Your task to perform on an android device: move an email to a new category in the gmail app Image 0: 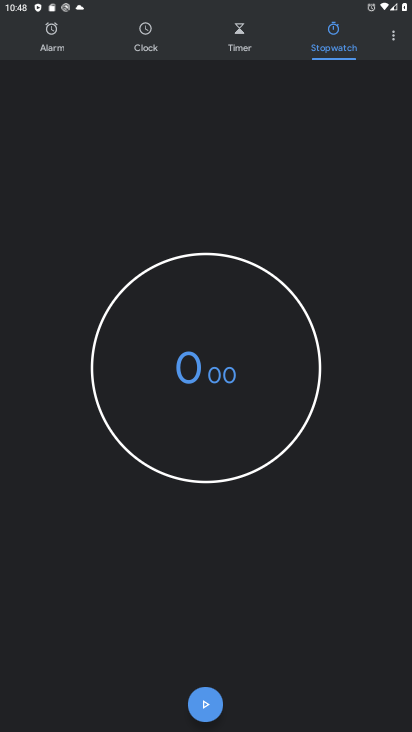
Step 0: press home button
Your task to perform on an android device: move an email to a new category in the gmail app Image 1: 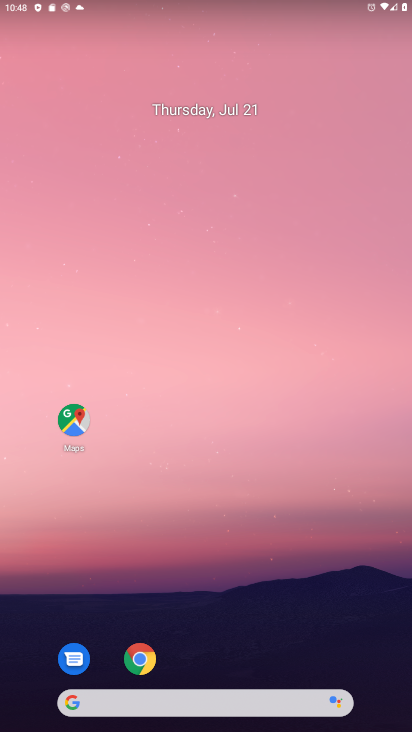
Step 1: drag from (179, 678) to (273, 92)
Your task to perform on an android device: move an email to a new category in the gmail app Image 2: 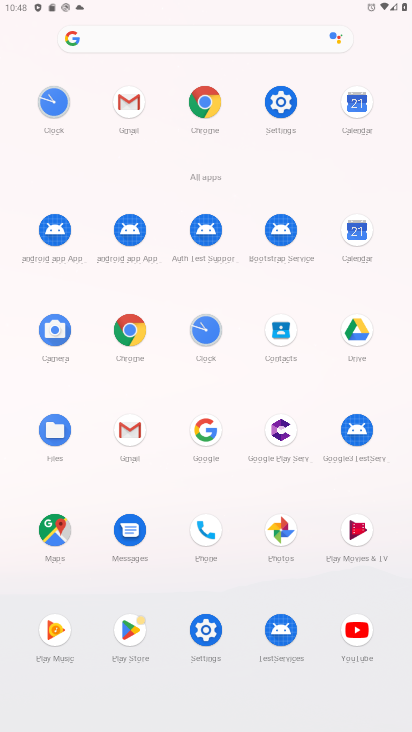
Step 2: click (126, 96)
Your task to perform on an android device: move an email to a new category in the gmail app Image 3: 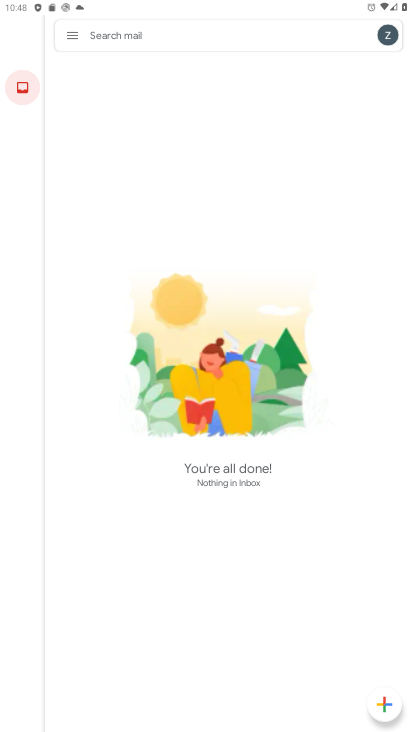
Step 3: click (74, 31)
Your task to perform on an android device: move an email to a new category in the gmail app Image 4: 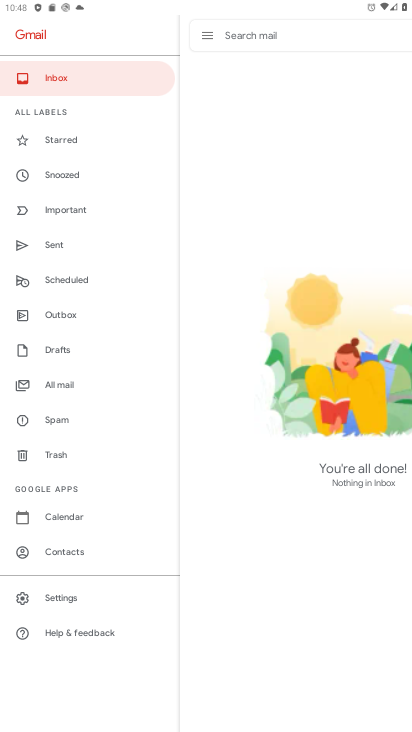
Step 4: click (90, 600)
Your task to perform on an android device: move an email to a new category in the gmail app Image 5: 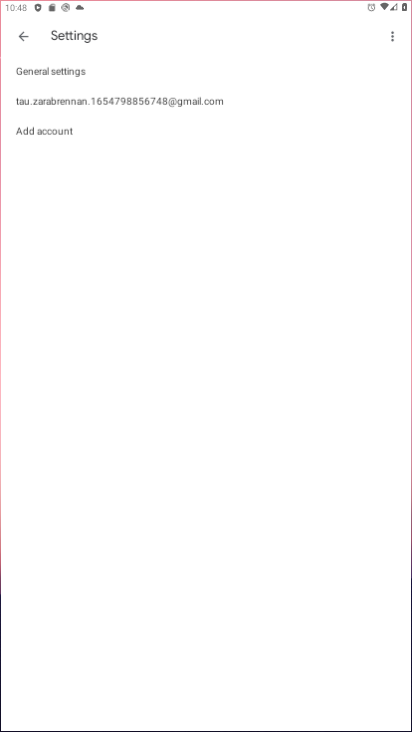
Step 5: task complete